Your task to perform on an android device: turn vacation reply on in the gmail app Image 0: 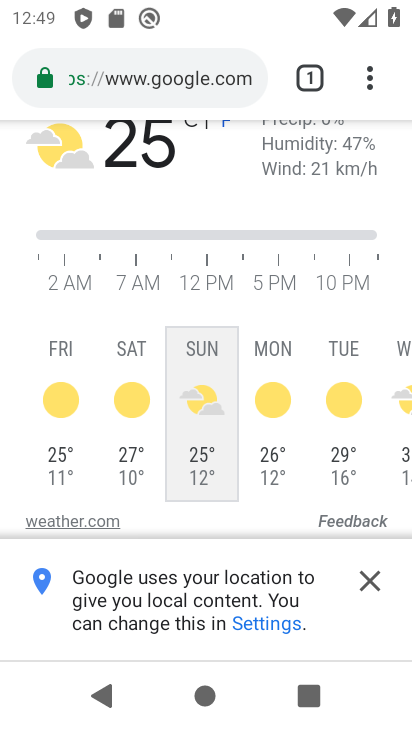
Step 0: press home button
Your task to perform on an android device: turn vacation reply on in the gmail app Image 1: 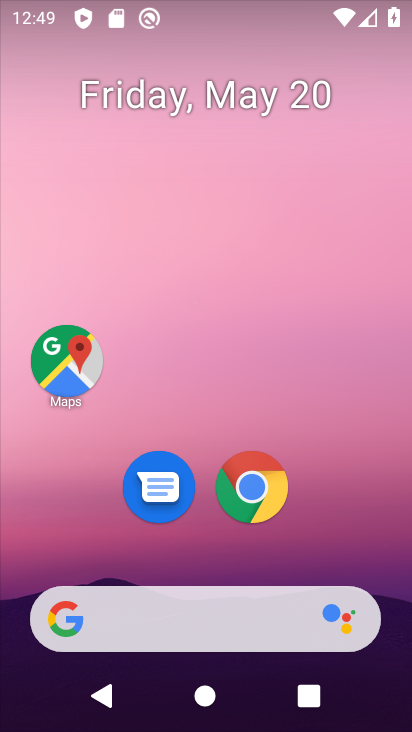
Step 1: drag from (331, 543) to (312, 133)
Your task to perform on an android device: turn vacation reply on in the gmail app Image 2: 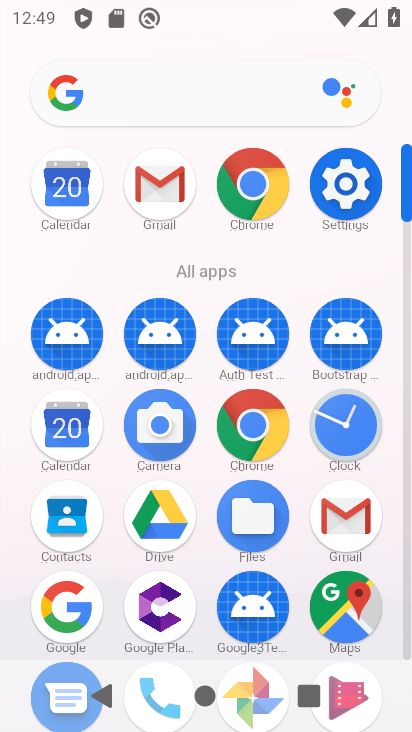
Step 2: click (166, 186)
Your task to perform on an android device: turn vacation reply on in the gmail app Image 3: 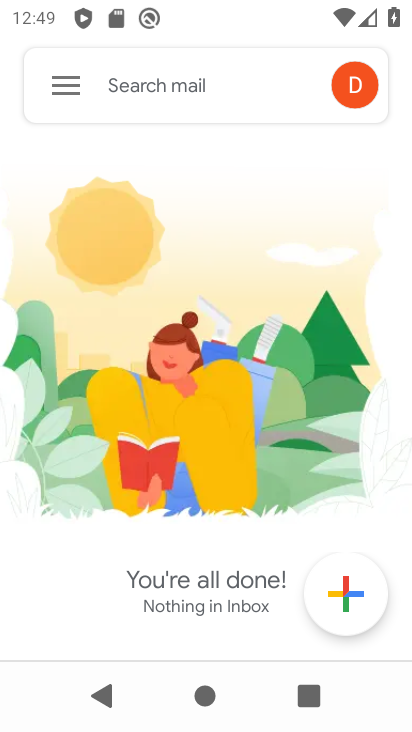
Step 3: click (64, 93)
Your task to perform on an android device: turn vacation reply on in the gmail app Image 4: 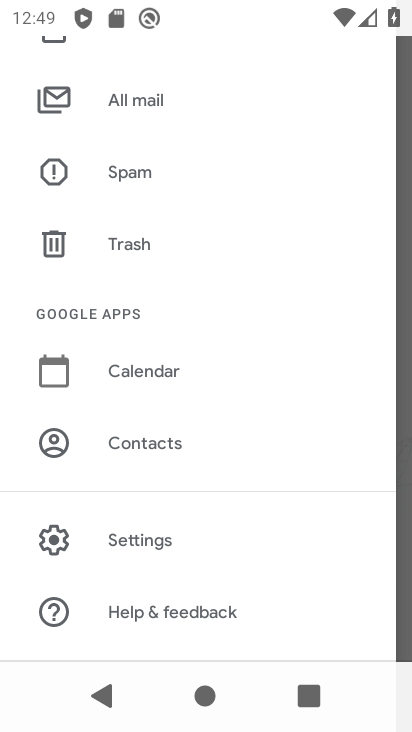
Step 4: click (204, 544)
Your task to perform on an android device: turn vacation reply on in the gmail app Image 5: 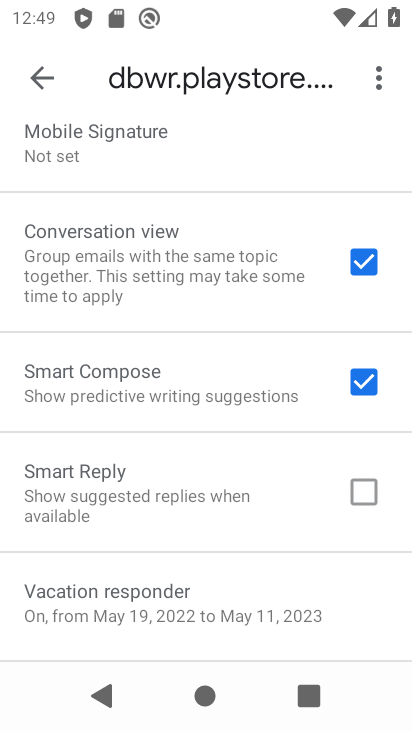
Step 5: click (242, 586)
Your task to perform on an android device: turn vacation reply on in the gmail app Image 6: 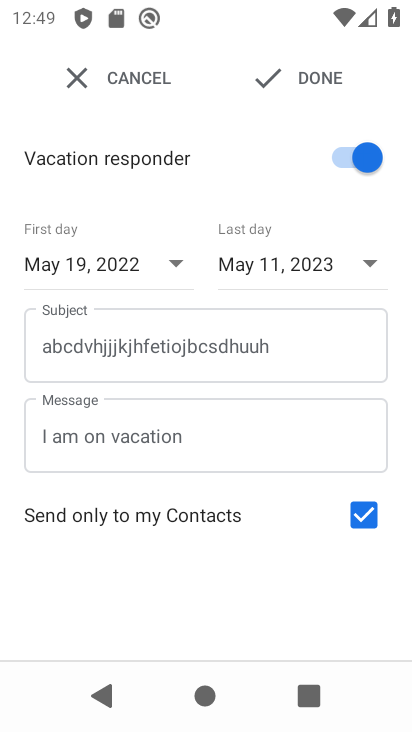
Step 6: task complete